Your task to perform on an android device: toggle wifi Image 0: 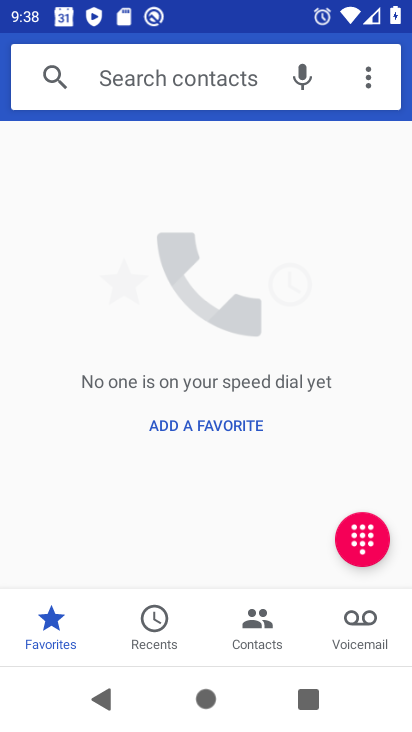
Step 0: drag from (217, 10) to (160, 633)
Your task to perform on an android device: toggle wifi Image 1: 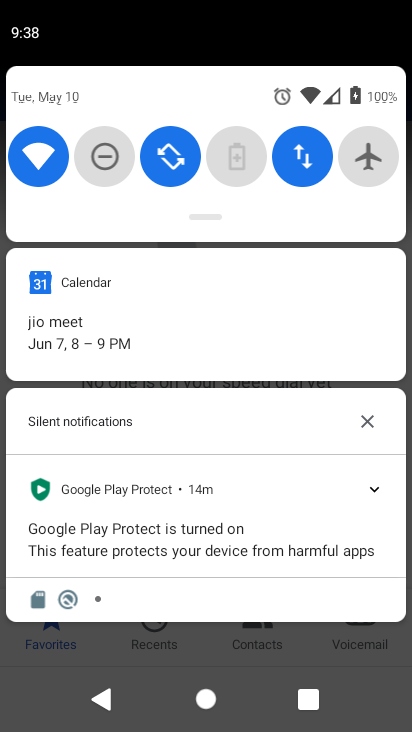
Step 1: click (38, 165)
Your task to perform on an android device: toggle wifi Image 2: 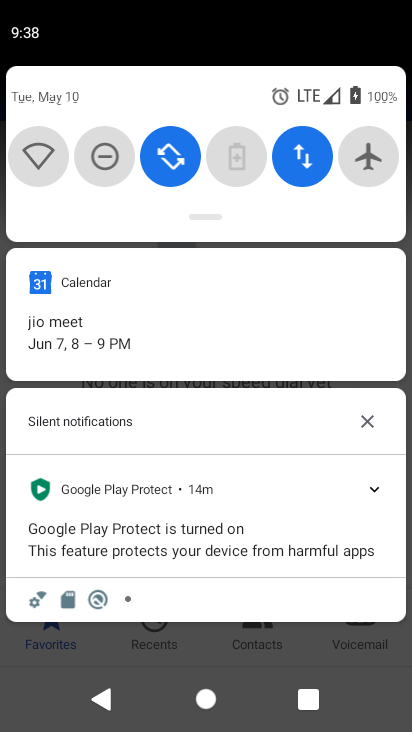
Step 2: click (38, 165)
Your task to perform on an android device: toggle wifi Image 3: 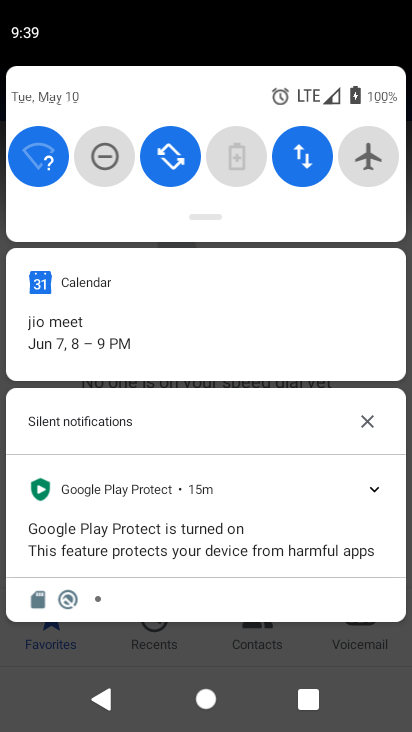
Step 3: task complete